Your task to perform on an android device: Clear the cart on amazon. Image 0: 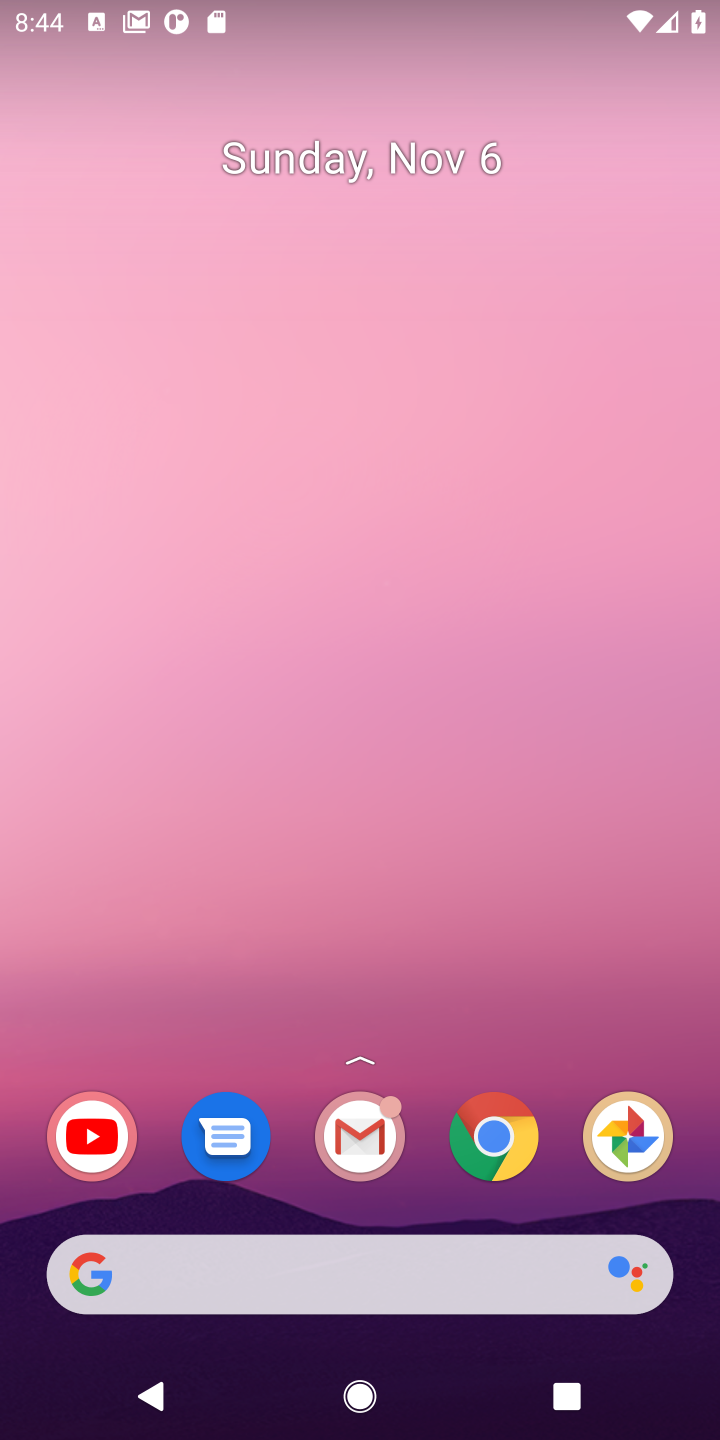
Step 0: task complete